Your task to perform on an android device: Open my contact list Image 0: 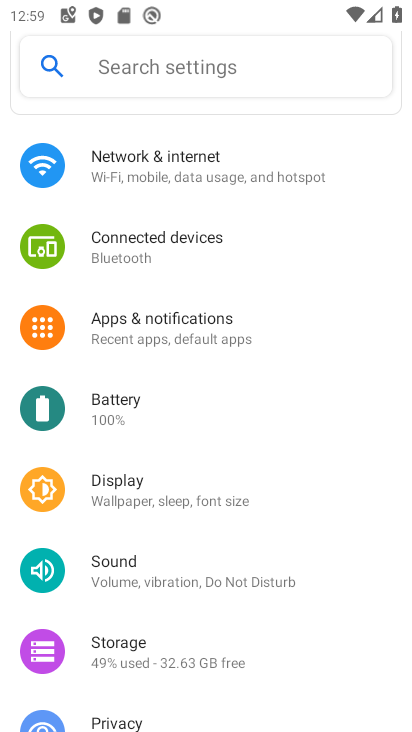
Step 0: press home button
Your task to perform on an android device: Open my contact list Image 1: 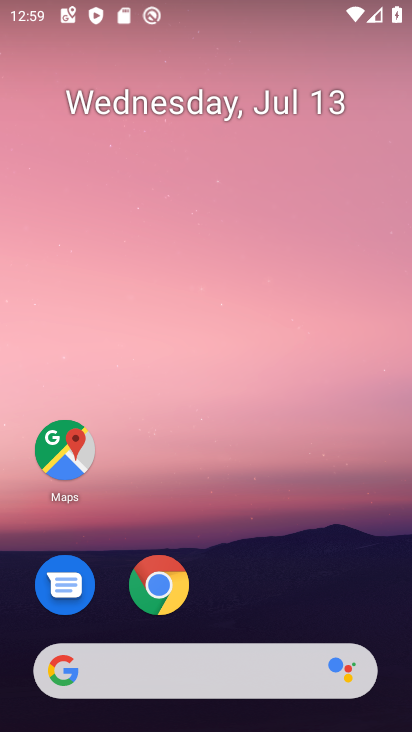
Step 1: drag from (157, 681) to (335, 210)
Your task to perform on an android device: Open my contact list Image 2: 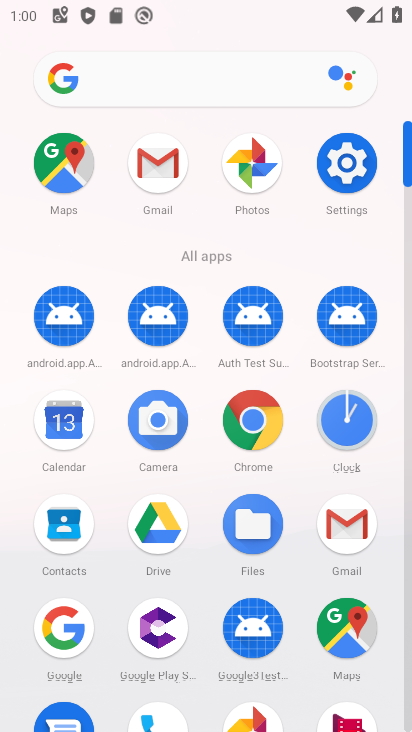
Step 2: click (68, 532)
Your task to perform on an android device: Open my contact list Image 3: 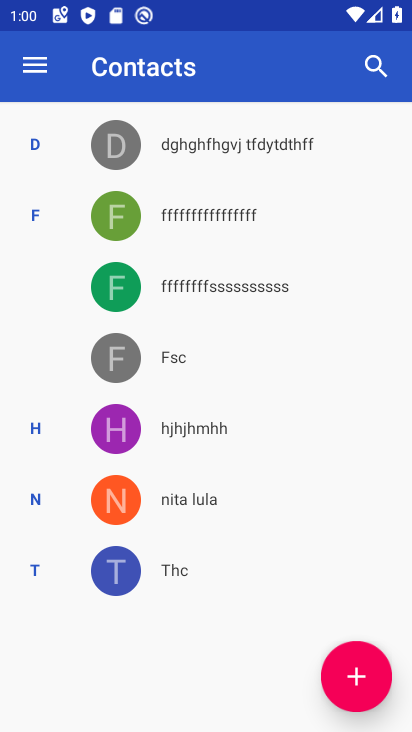
Step 3: task complete